Your task to perform on an android device: Go to wifi settings Image 0: 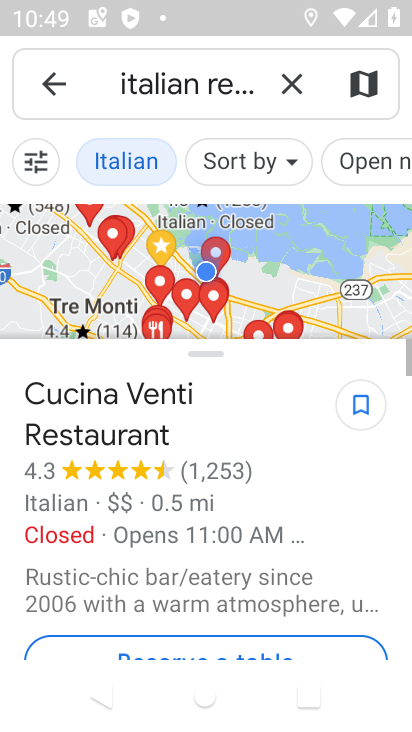
Step 0: press home button
Your task to perform on an android device: Go to wifi settings Image 1: 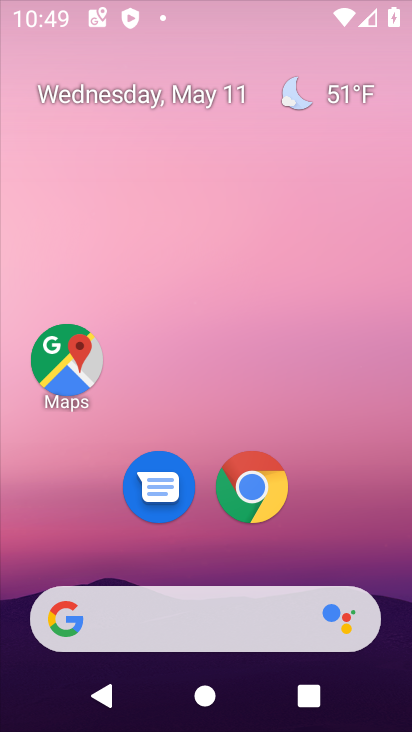
Step 1: drag from (263, 561) to (256, 106)
Your task to perform on an android device: Go to wifi settings Image 2: 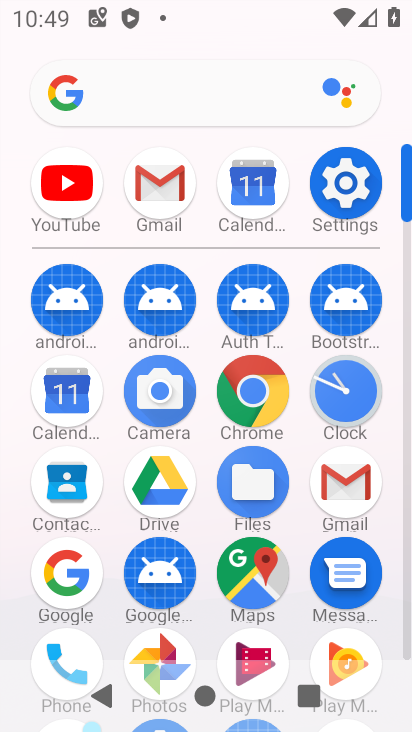
Step 2: click (361, 196)
Your task to perform on an android device: Go to wifi settings Image 3: 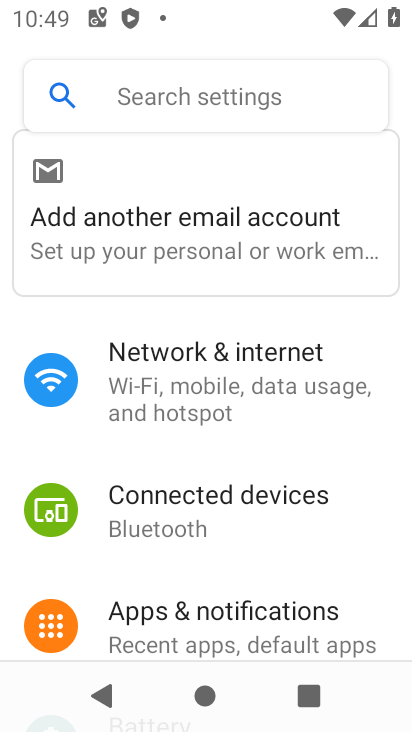
Step 3: click (250, 385)
Your task to perform on an android device: Go to wifi settings Image 4: 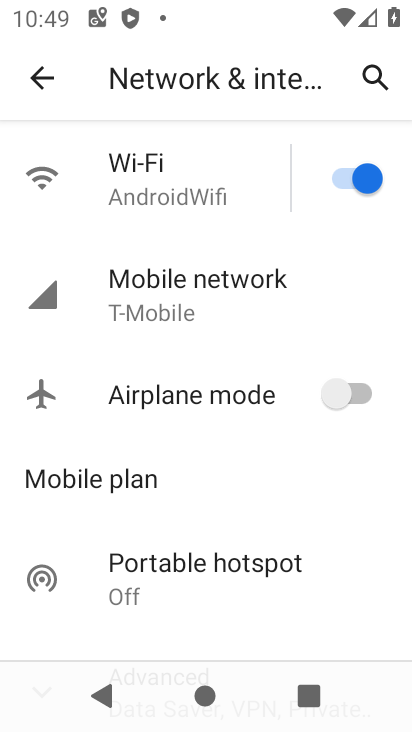
Step 4: click (162, 188)
Your task to perform on an android device: Go to wifi settings Image 5: 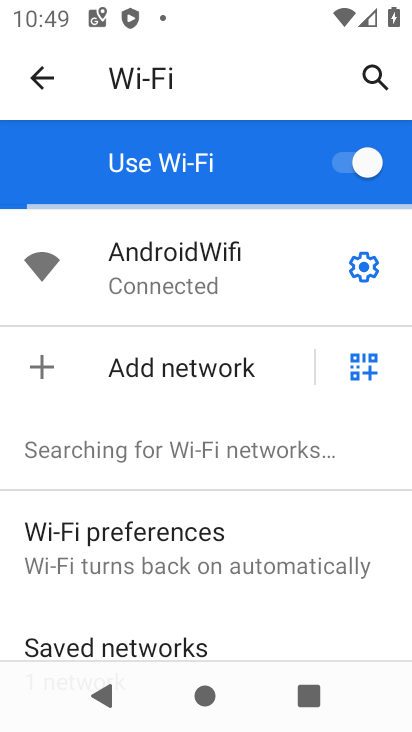
Step 5: task complete